Your task to perform on an android device: check the backup settings in the google photos Image 0: 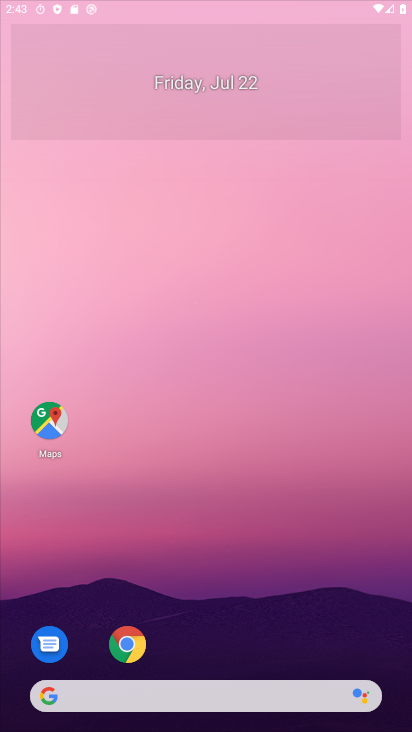
Step 0: press home button
Your task to perform on an android device: check the backup settings in the google photos Image 1: 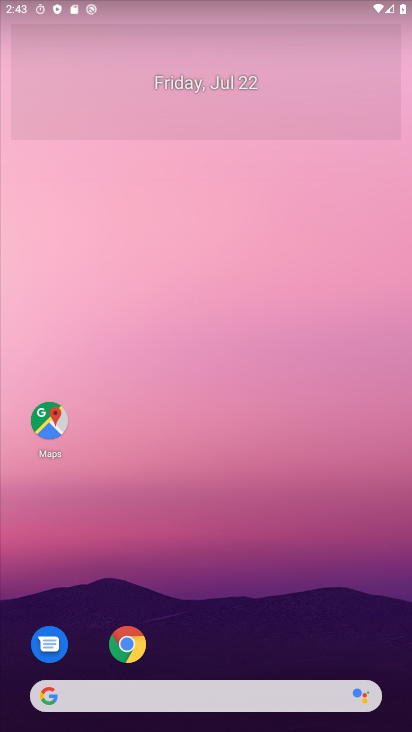
Step 1: drag from (248, 652) to (314, 167)
Your task to perform on an android device: check the backup settings in the google photos Image 2: 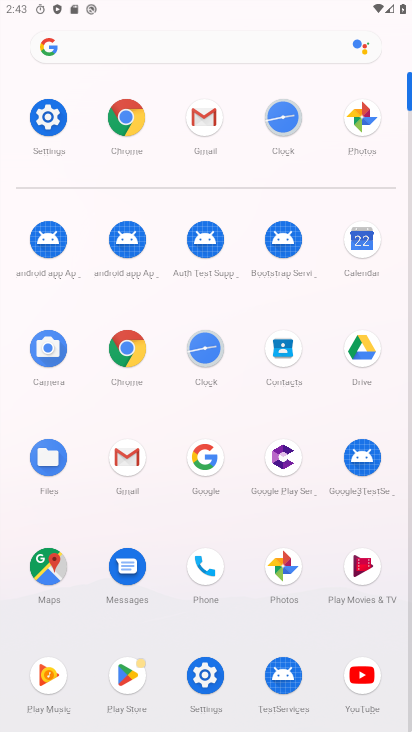
Step 2: click (293, 561)
Your task to perform on an android device: check the backup settings in the google photos Image 3: 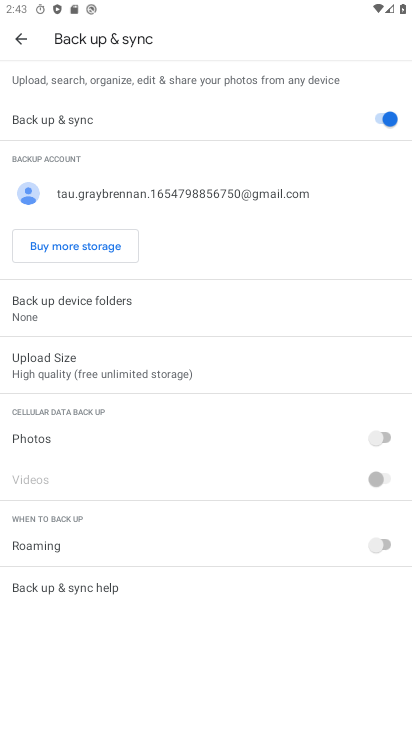
Step 3: task complete